Your task to perform on an android device: Toggle the flashlight Image 0: 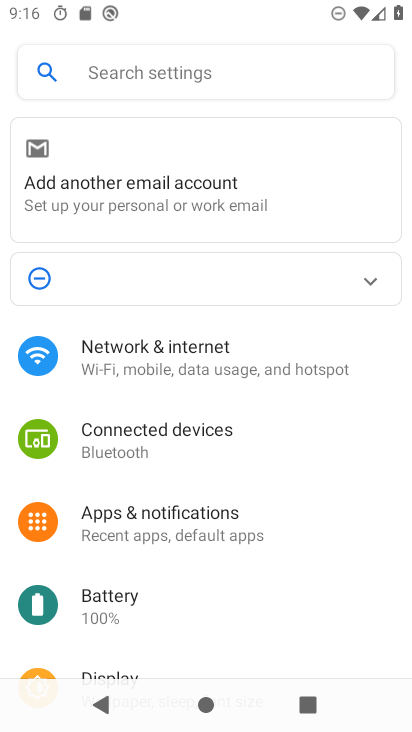
Step 0: click (283, 65)
Your task to perform on an android device: Toggle the flashlight Image 1: 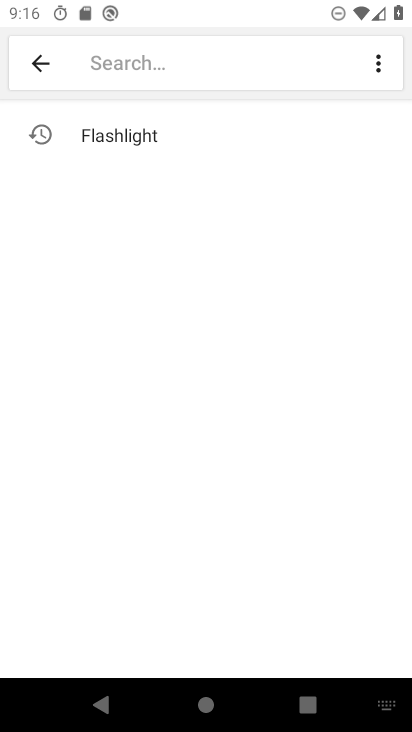
Step 1: click (132, 123)
Your task to perform on an android device: Toggle the flashlight Image 2: 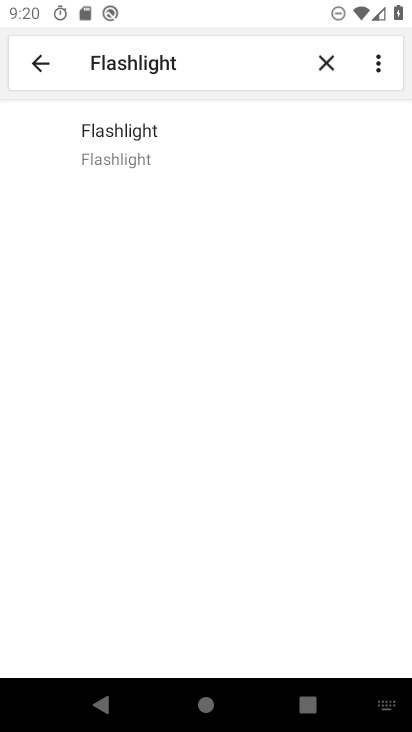
Step 2: task complete